Your task to perform on an android device: allow notifications from all sites in the chrome app Image 0: 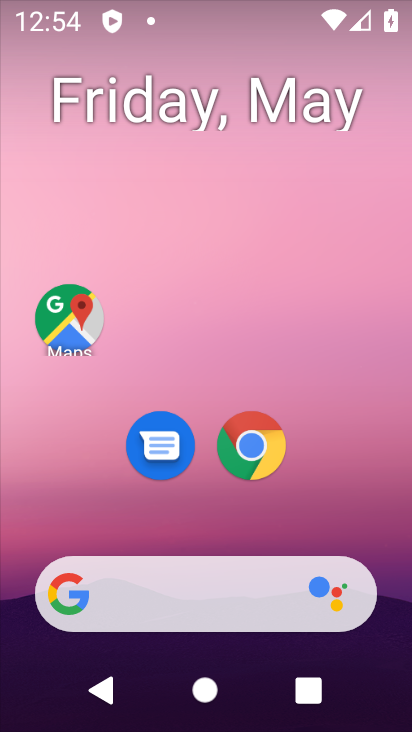
Step 0: click (274, 445)
Your task to perform on an android device: allow notifications from all sites in the chrome app Image 1: 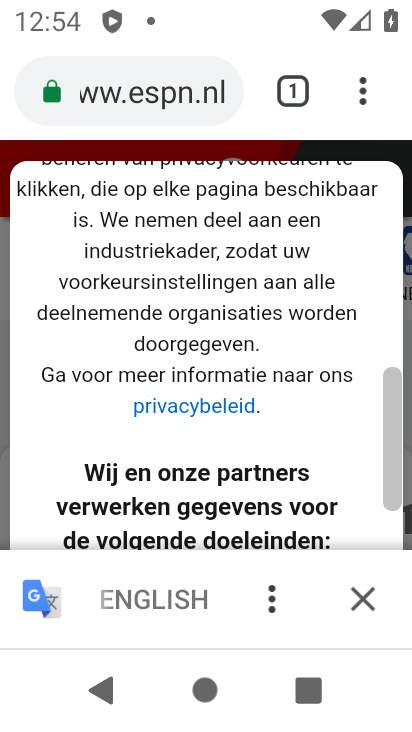
Step 1: click (365, 109)
Your task to perform on an android device: allow notifications from all sites in the chrome app Image 2: 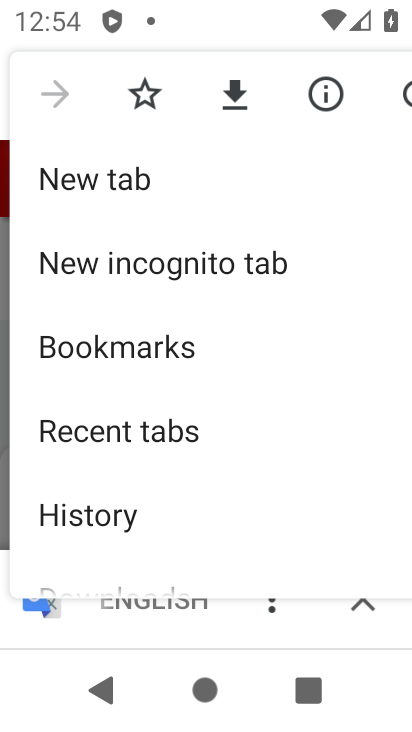
Step 2: drag from (144, 501) to (121, 125)
Your task to perform on an android device: allow notifications from all sites in the chrome app Image 3: 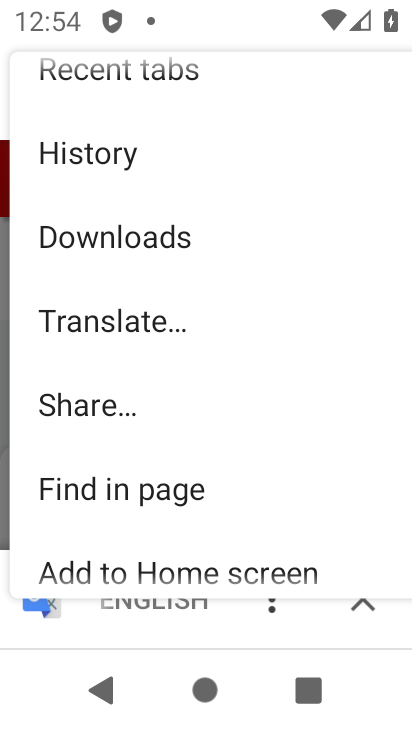
Step 3: drag from (127, 477) to (118, 38)
Your task to perform on an android device: allow notifications from all sites in the chrome app Image 4: 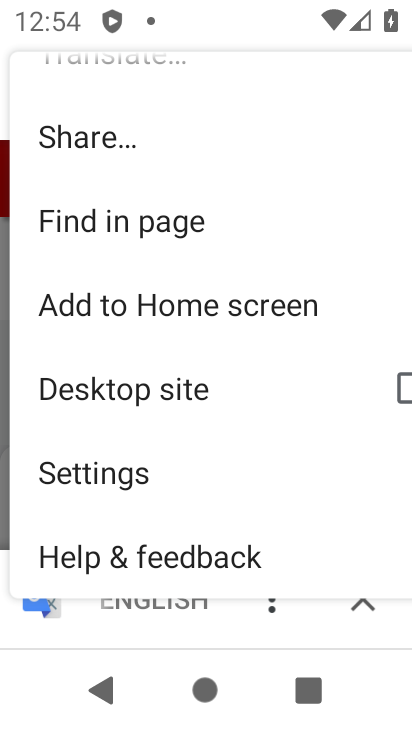
Step 4: click (140, 459)
Your task to perform on an android device: allow notifications from all sites in the chrome app Image 5: 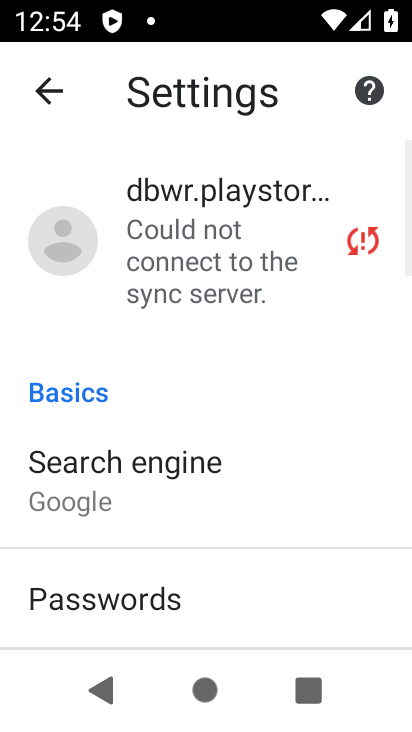
Step 5: drag from (176, 544) to (223, 47)
Your task to perform on an android device: allow notifications from all sites in the chrome app Image 6: 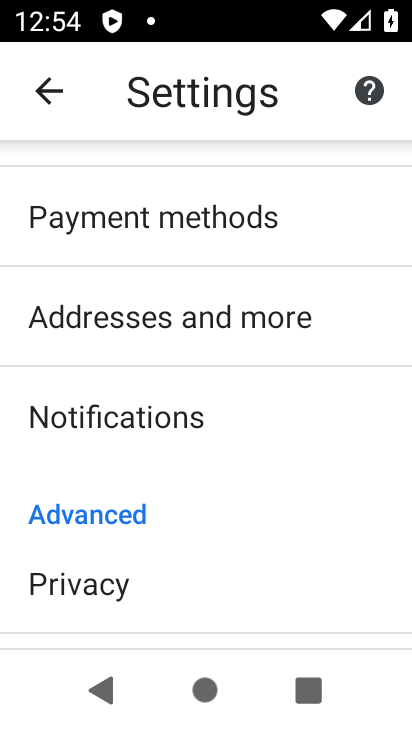
Step 6: click (153, 423)
Your task to perform on an android device: allow notifications from all sites in the chrome app Image 7: 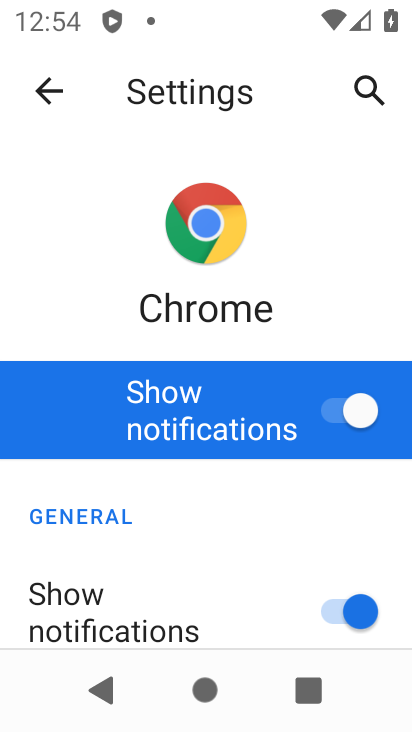
Step 7: task complete